Your task to perform on an android device: turn vacation reply on in the gmail app Image 0: 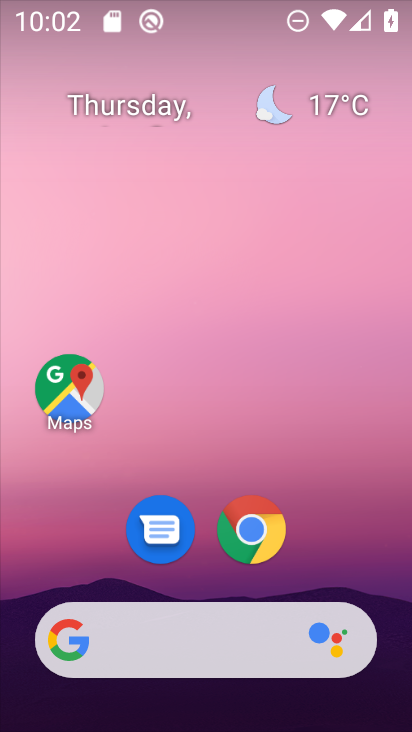
Step 0: drag from (384, 702) to (317, 244)
Your task to perform on an android device: turn vacation reply on in the gmail app Image 1: 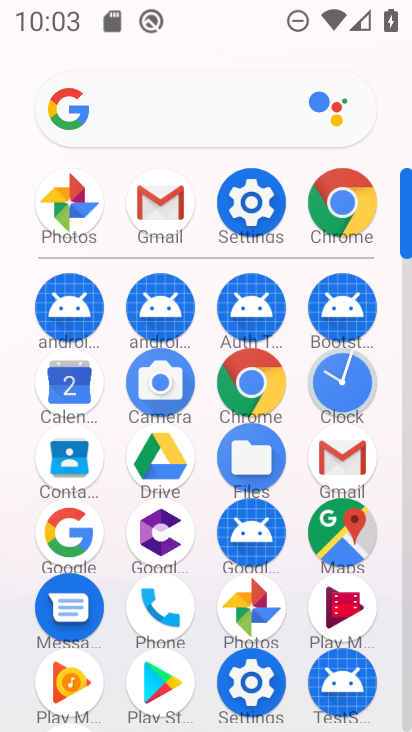
Step 1: click (172, 218)
Your task to perform on an android device: turn vacation reply on in the gmail app Image 2: 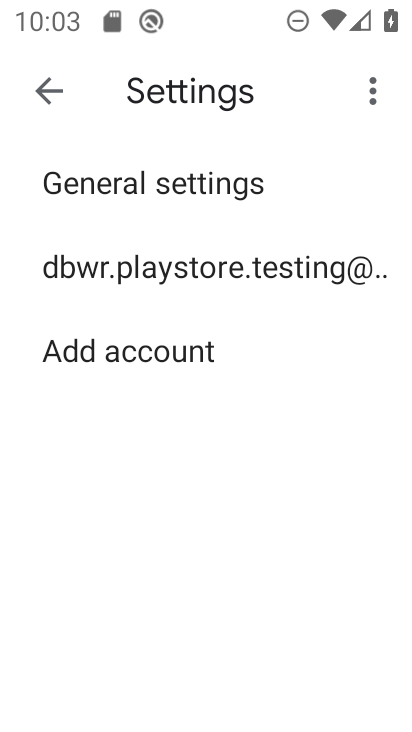
Step 2: click (107, 261)
Your task to perform on an android device: turn vacation reply on in the gmail app Image 3: 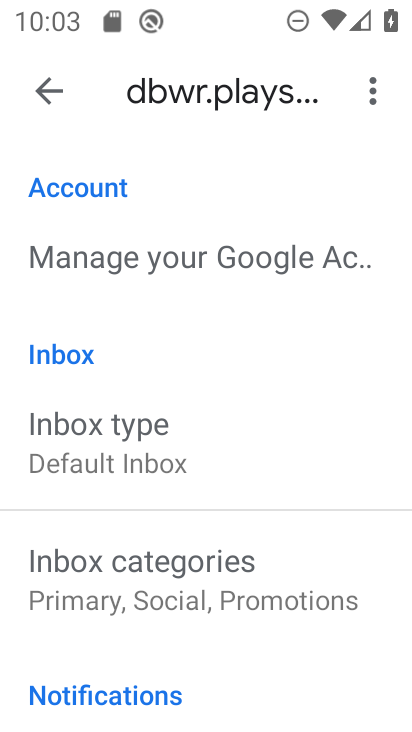
Step 3: drag from (336, 674) to (316, 241)
Your task to perform on an android device: turn vacation reply on in the gmail app Image 4: 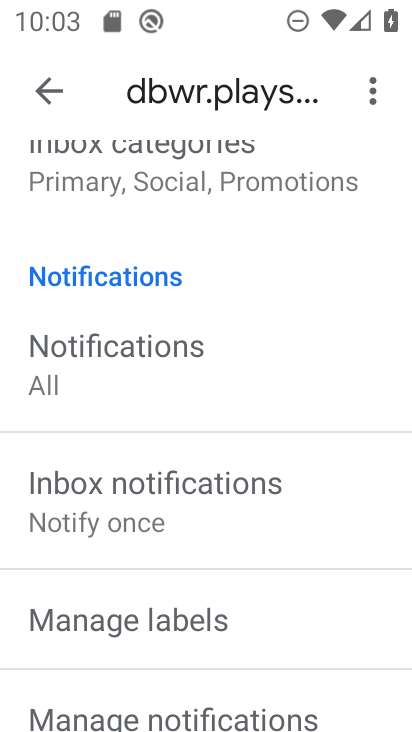
Step 4: drag from (348, 684) to (312, 243)
Your task to perform on an android device: turn vacation reply on in the gmail app Image 5: 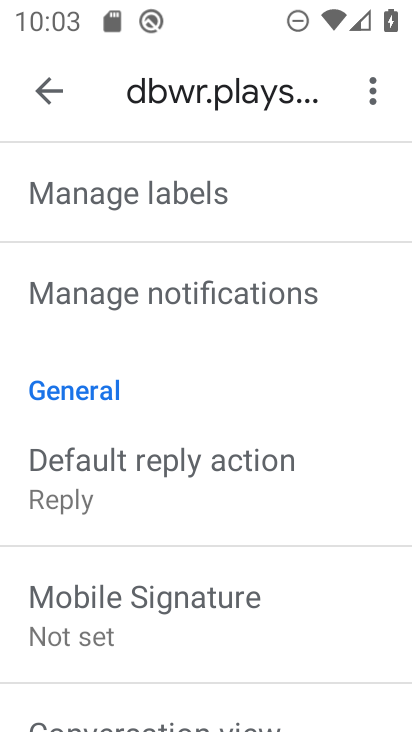
Step 5: drag from (356, 670) to (350, 290)
Your task to perform on an android device: turn vacation reply on in the gmail app Image 6: 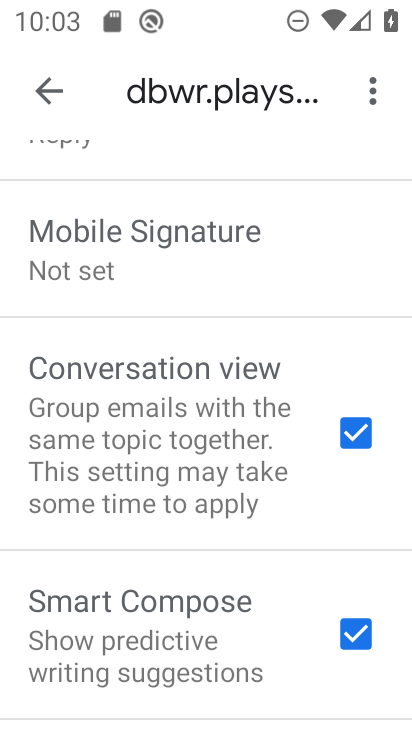
Step 6: drag from (312, 646) to (293, 288)
Your task to perform on an android device: turn vacation reply on in the gmail app Image 7: 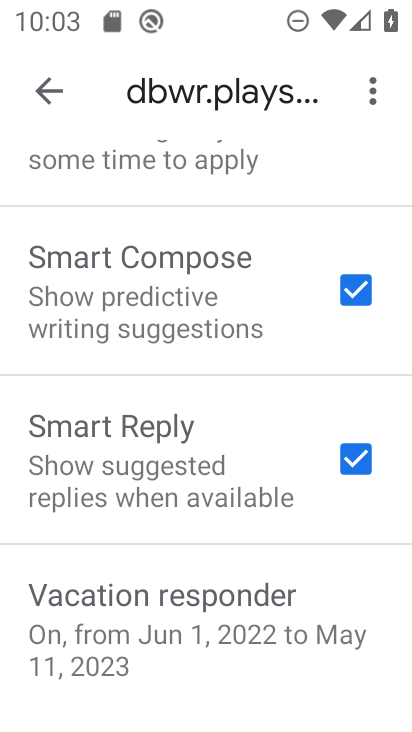
Step 7: click (172, 639)
Your task to perform on an android device: turn vacation reply on in the gmail app Image 8: 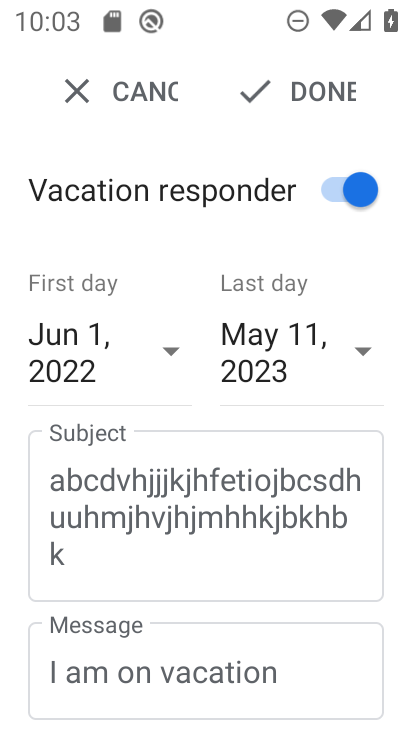
Step 8: task complete